Your task to perform on an android device: Open ESPN.com Image 0: 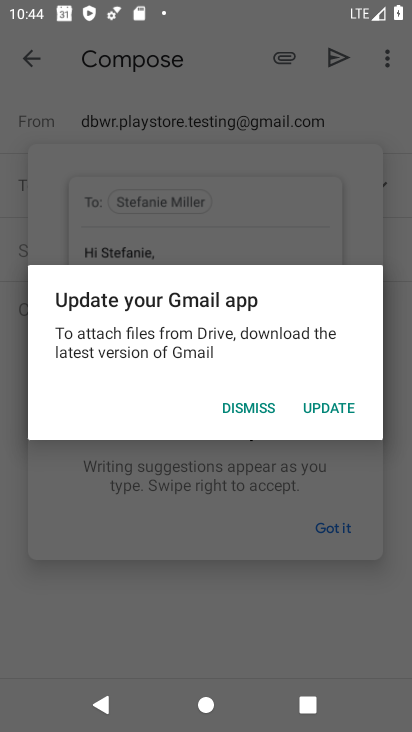
Step 0: press home button
Your task to perform on an android device: Open ESPN.com Image 1: 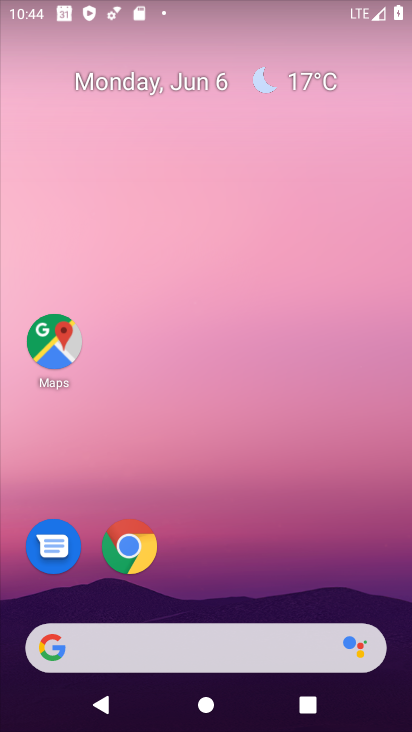
Step 1: click (121, 545)
Your task to perform on an android device: Open ESPN.com Image 2: 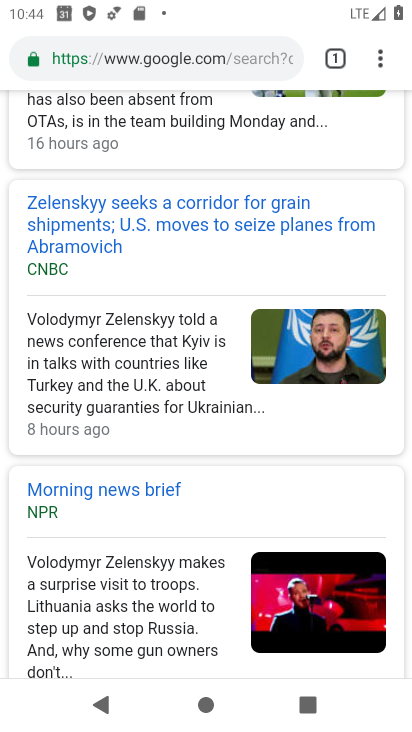
Step 2: click (208, 52)
Your task to perform on an android device: Open ESPN.com Image 3: 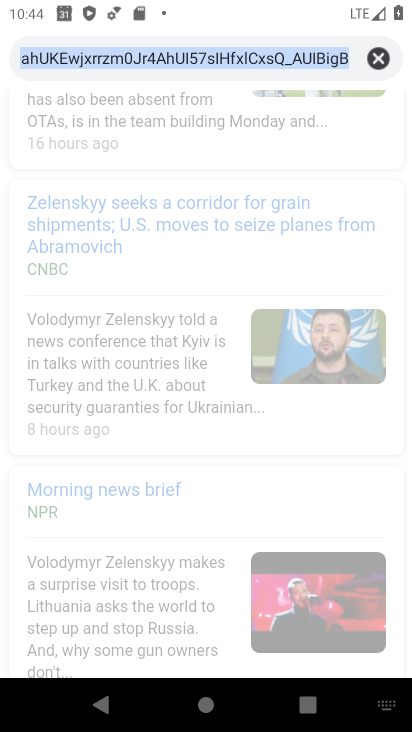
Step 3: click (381, 62)
Your task to perform on an android device: Open ESPN.com Image 4: 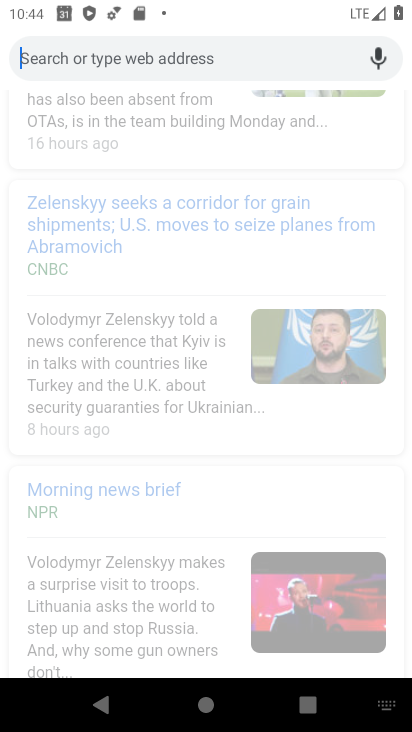
Step 4: type "espn.com"
Your task to perform on an android device: Open ESPN.com Image 5: 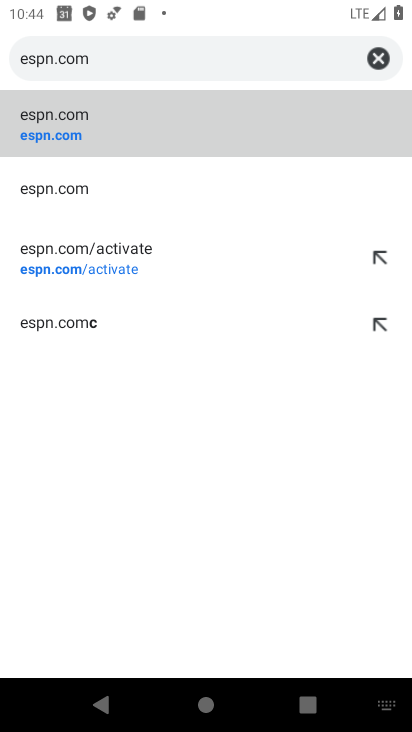
Step 5: click (50, 132)
Your task to perform on an android device: Open ESPN.com Image 6: 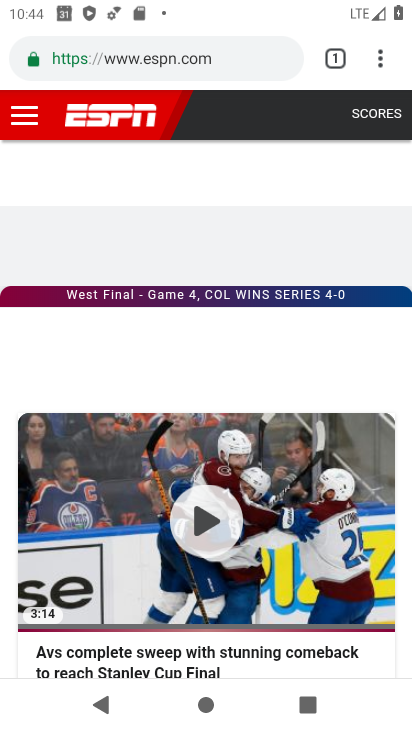
Step 6: task complete